Your task to perform on an android device: What is the news today? Image 0: 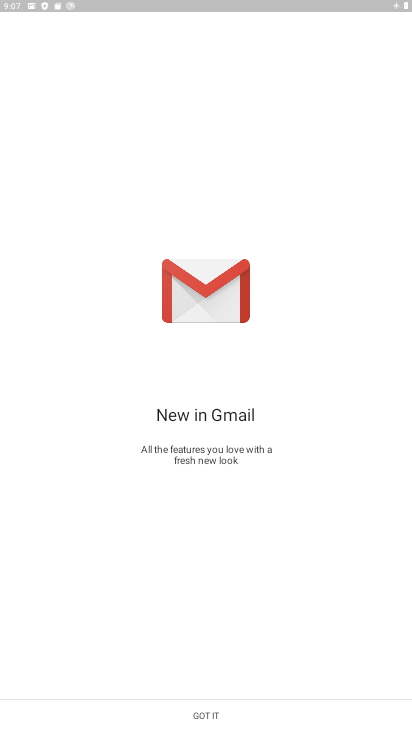
Step 0: press home button
Your task to perform on an android device: What is the news today? Image 1: 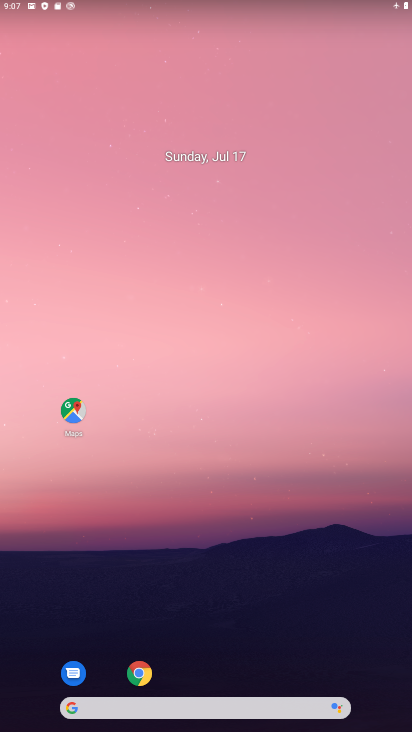
Step 1: task complete